Your task to perform on an android device: star an email in the gmail app Image 0: 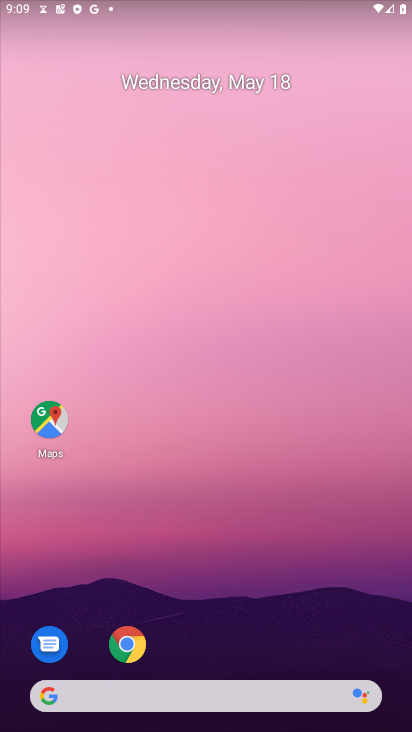
Step 0: drag from (246, 633) to (173, 72)
Your task to perform on an android device: star an email in the gmail app Image 1: 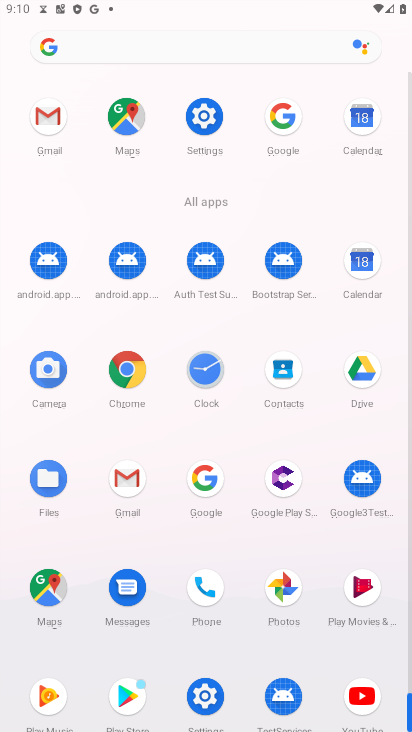
Step 1: click (43, 114)
Your task to perform on an android device: star an email in the gmail app Image 2: 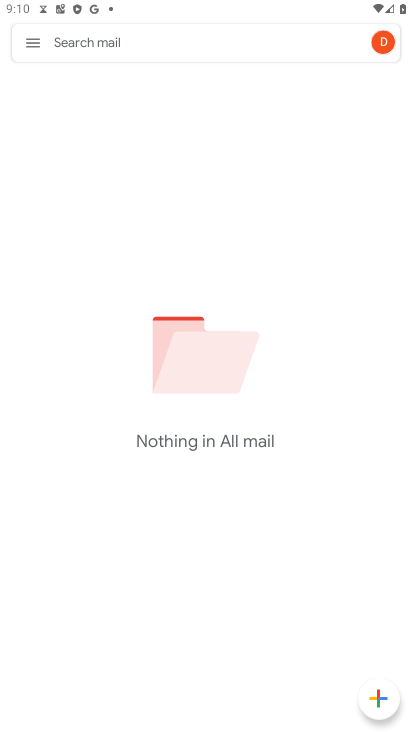
Step 2: click (34, 49)
Your task to perform on an android device: star an email in the gmail app Image 3: 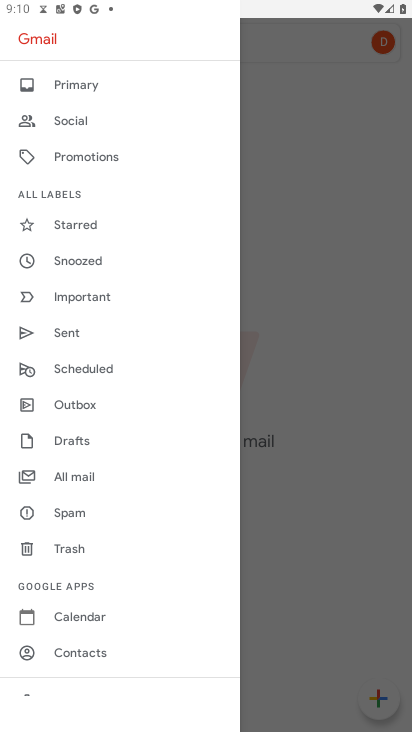
Step 3: drag from (54, 277) to (85, 213)
Your task to perform on an android device: star an email in the gmail app Image 4: 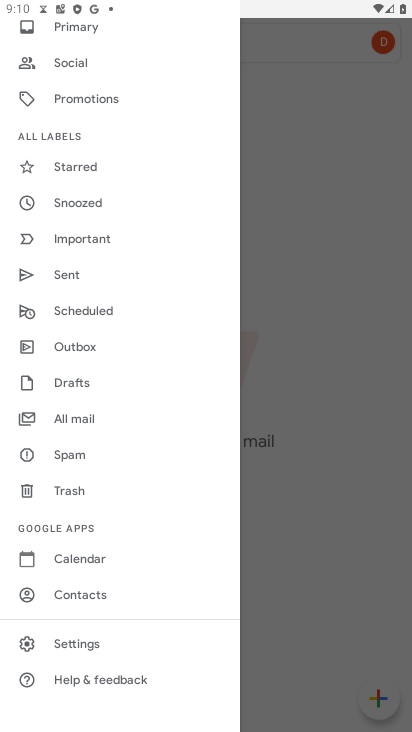
Step 4: click (85, 416)
Your task to perform on an android device: star an email in the gmail app Image 5: 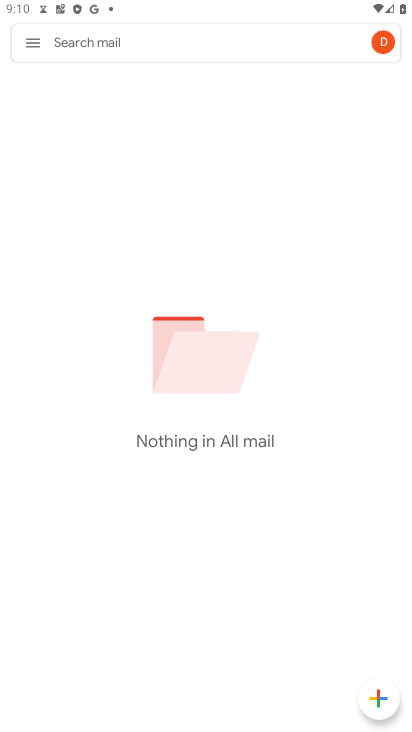
Step 5: task complete